Your task to perform on an android device: open the mobile data screen to see how much data has been used Image 0: 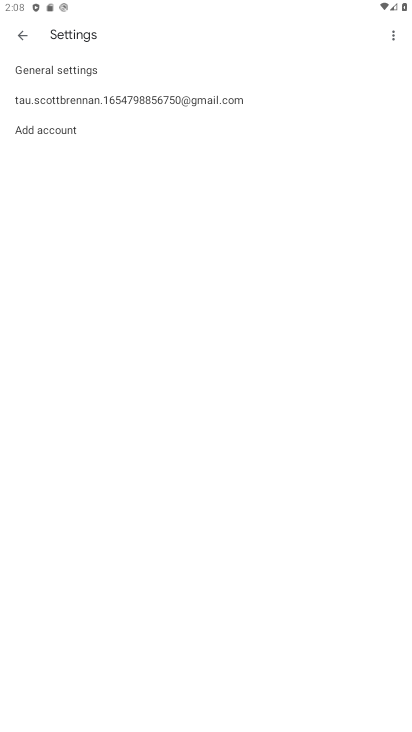
Step 0: press home button
Your task to perform on an android device: open the mobile data screen to see how much data has been used Image 1: 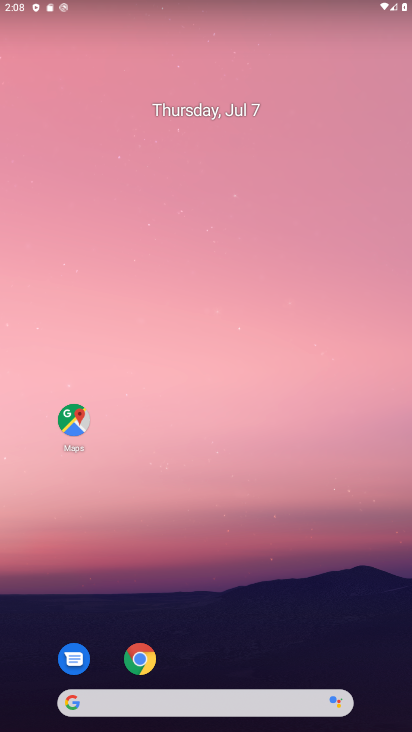
Step 1: drag from (239, 561) to (163, 19)
Your task to perform on an android device: open the mobile data screen to see how much data has been used Image 2: 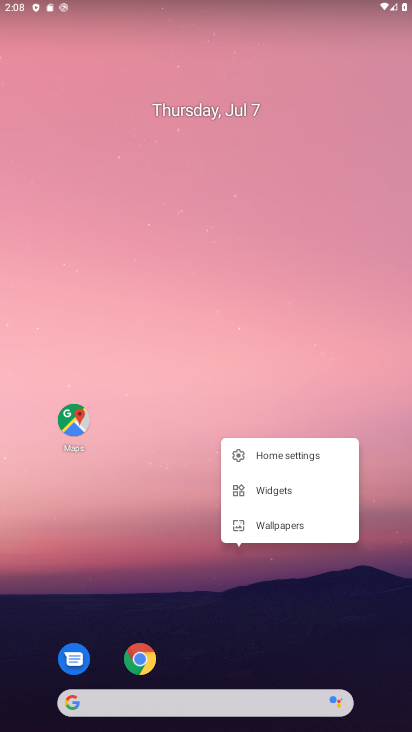
Step 2: click (157, 563)
Your task to perform on an android device: open the mobile data screen to see how much data has been used Image 3: 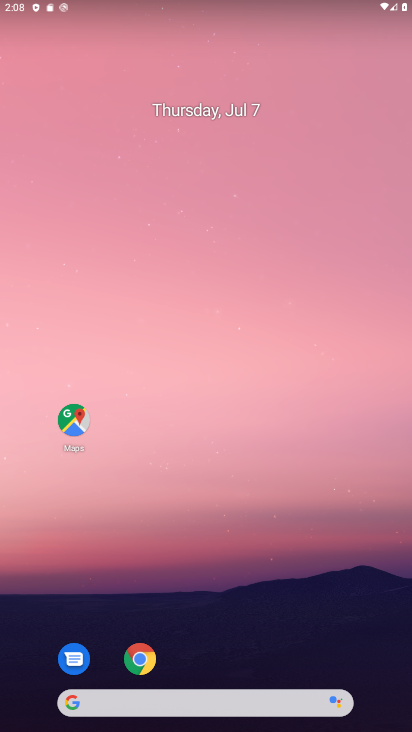
Step 3: drag from (193, 577) to (90, 144)
Your task to perform on an android device: open the mobile data screen to see how much data has been used Image 4: 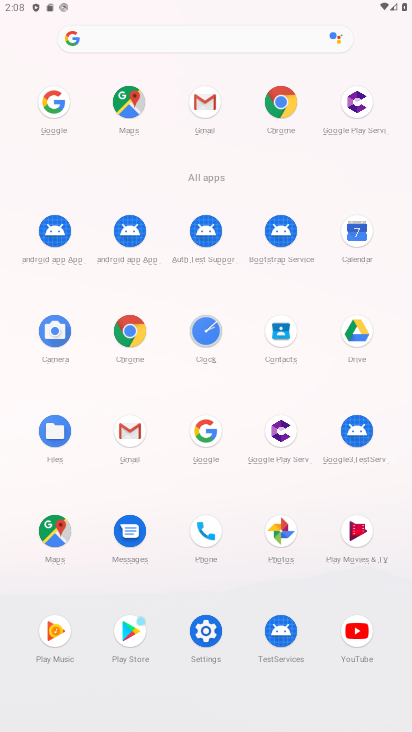
Step 4: click (205, 635)
Your task to perform on an android device: open the mobile data screen to see how much data has been used Image 5: 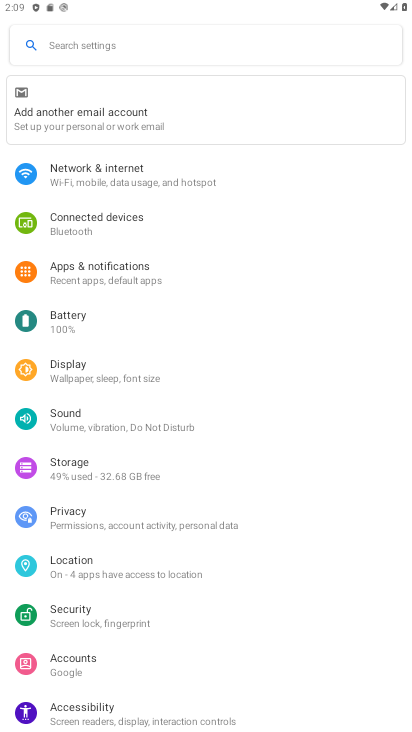
Step 5: click (93, 169)
Your task to perform on an android device: open the mobile data screen to see how much data has been used Image 6: 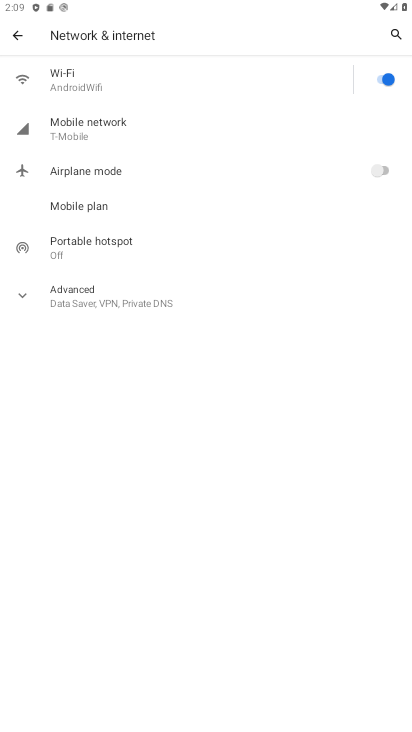
Step 6: click (122, 122)
Your task to perform on an android device: open the mobile data screen to see how much data has been used Image 7: 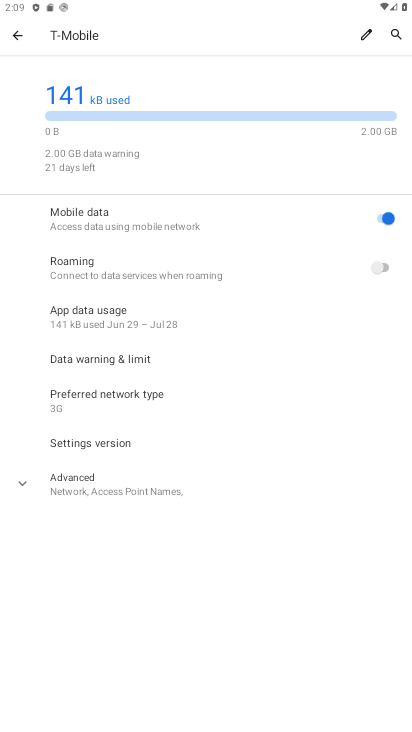
Step 7: task complete